Your task to perform on an android device: Clear the shopping cart on ebay.com. Image 0: 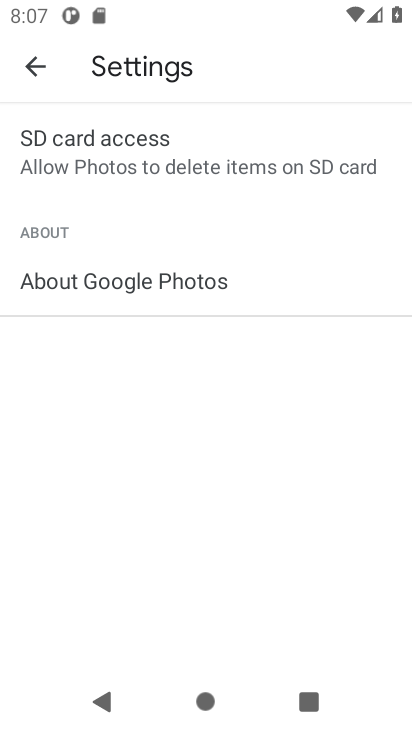
Step 0: press home button
Your task to perform on an android device: Clear the shopping cart on ebay.com. Image 1: 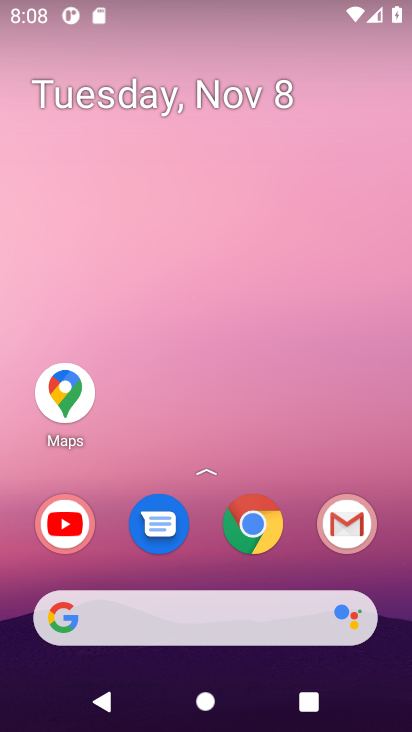
Step 1: click (262, 532)
Your task to perform on an android device: Clear the shopping cart on ebay.com. Image 2: 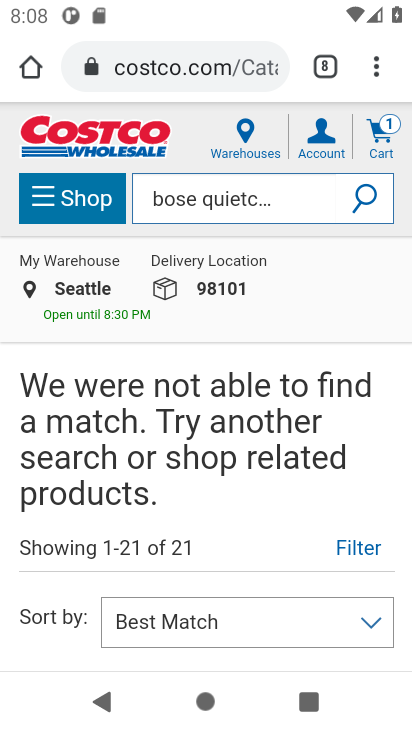
Step 2: click (181, 83)
Your task to perform on an android device: Clear the shopping cart on ebay.com. Image 3: 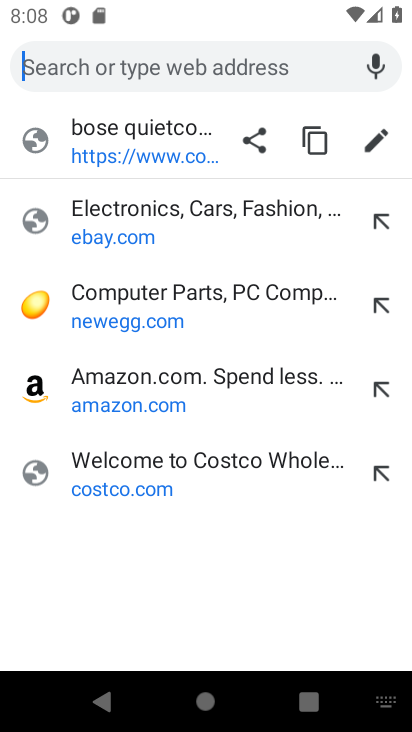
Step 3: click (130, 248)
Your task to perform on an android device: Clear the shopping cart on ebay.com. Image 4: 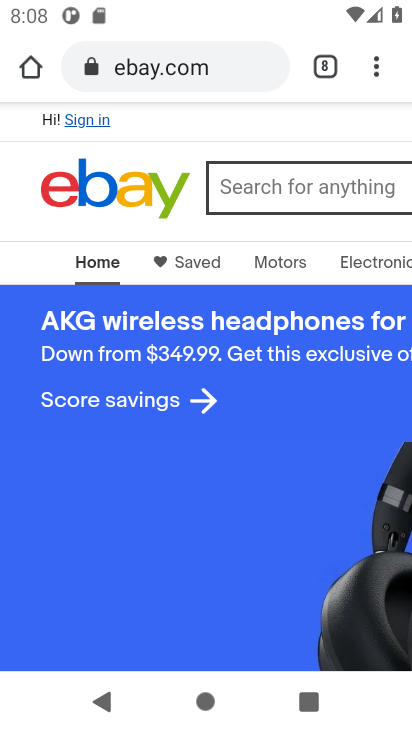
Step 4: drag from (328, 195) to (0, 183)
Your task to perform on an android device: Clear the shopping cart on ebay.com. Image 5: 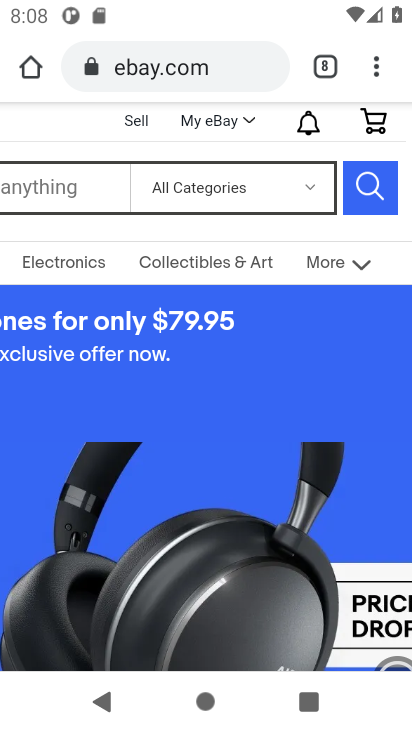
Step 5: click (371, 126)
Your task to perform on an android device: Clear the shopping cart on ebay.com. Image 6: 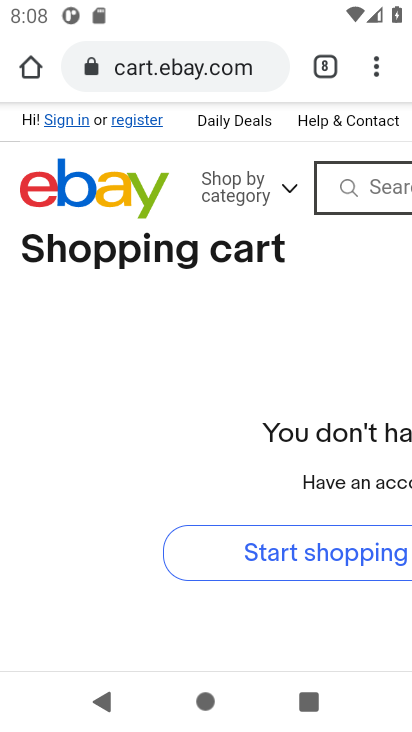
Step 6: task complete